Your task to perform on an android device: Go to eBay Image 0: 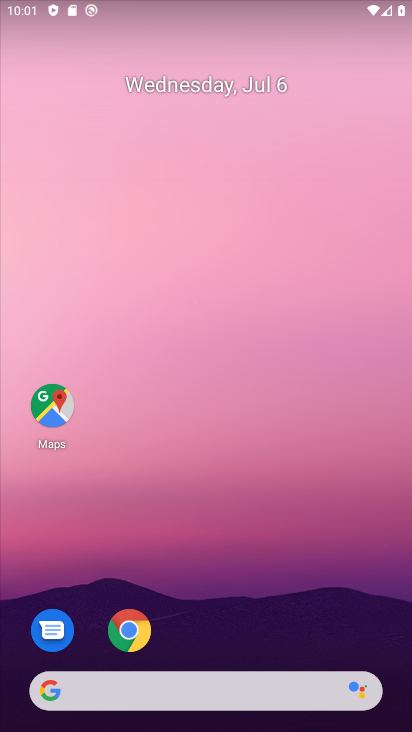
Step 0: drag from (311, 626) to (316, 228)
Your task to perform on an android device: Go to eBay Image 1: 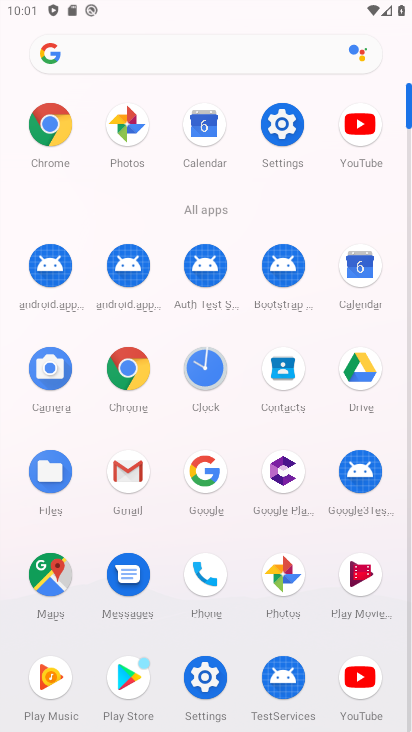
Step 1: click (136, 356)
Your task to perform on an android device: Go to eBay Image 2: 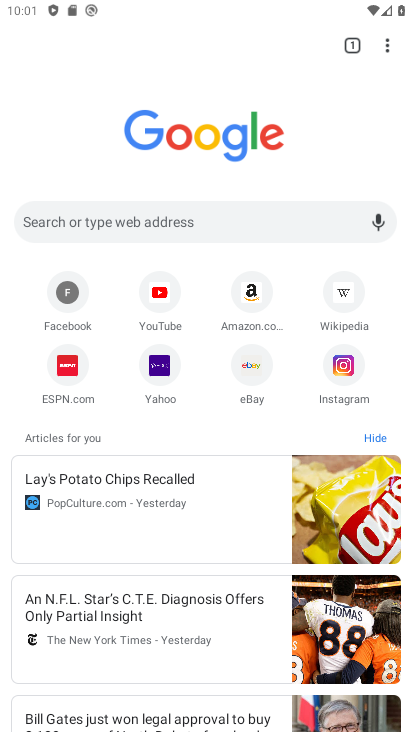
Step 2: click (249, 364)
Your task to perform on an android device: Go to eBay Image 3: 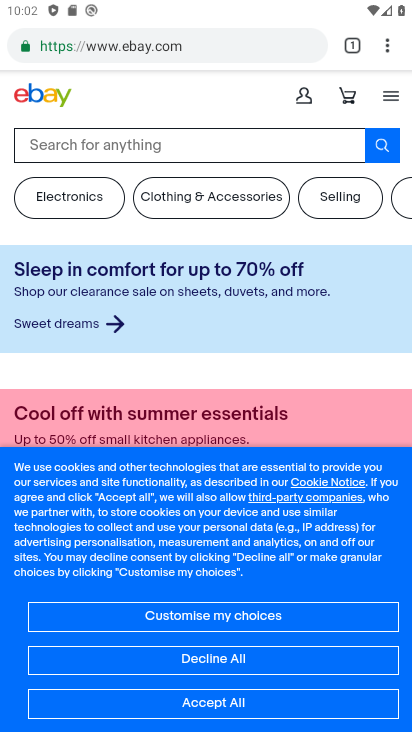
Step 3: task complete